Your task to perform on an android device: Open Google Chrome and open the bookmarks view Image 0: 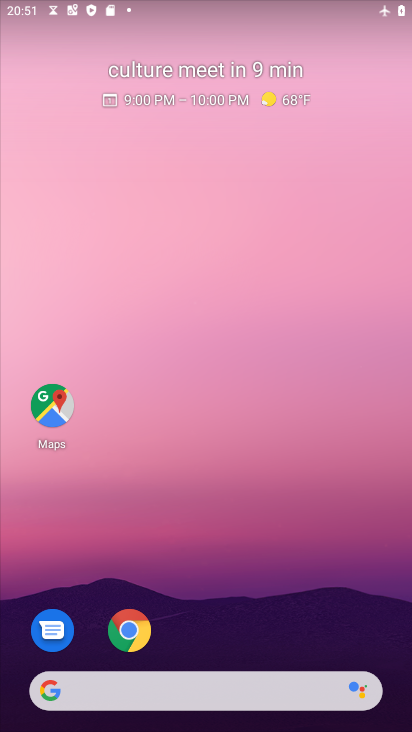
Step 0: click (129, 629)
Your task to perform on an android device: Open Google Chrome and open the bookmarks view Image 1: 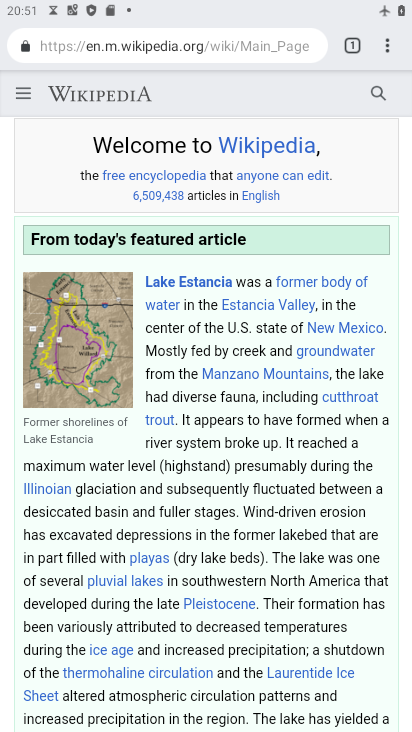
Step 1: click (388, 44)
Your task to perform on an android device: Open Google Chrome and open the bookmarks view Image 2: 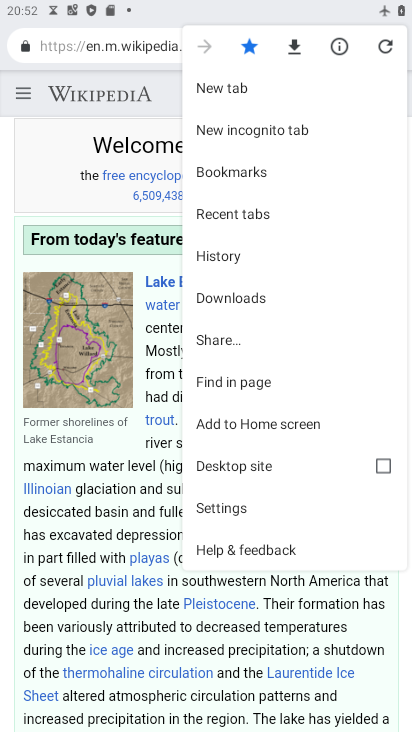
Step 2: click (263, 172)
Your task to perform on an android device: Open Google Chrome and open the bookmarks view Image 3: 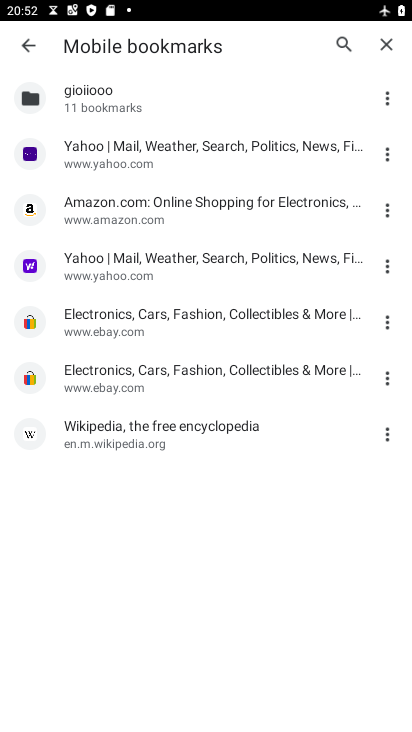
Step 3: task complete